Your task to perform on an android device: set default search engine in the chrome app Image 0: 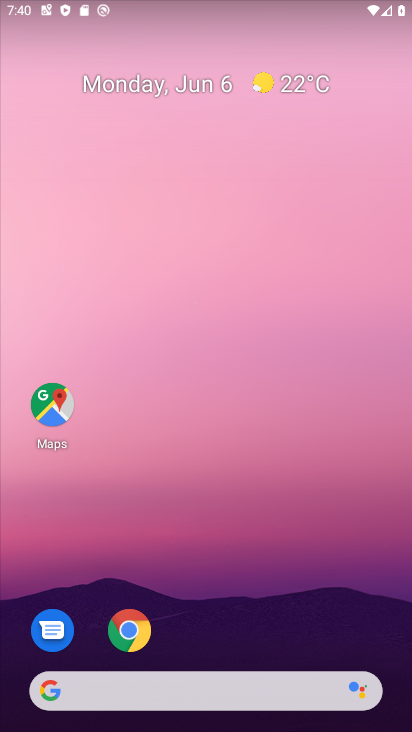
Step 0: click (119, 650)
Your task to perform on an android device: set default search engine in the chrome app Image 1: 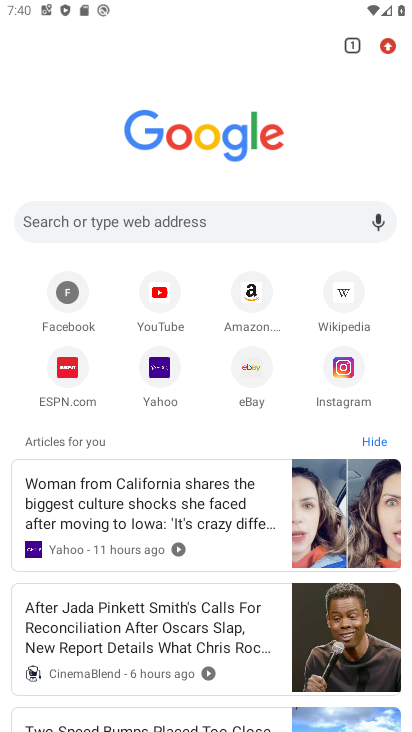
Step 1: click (390, 45)
Your task to perform on an android device: set default search engine in the chrome app Image 2: 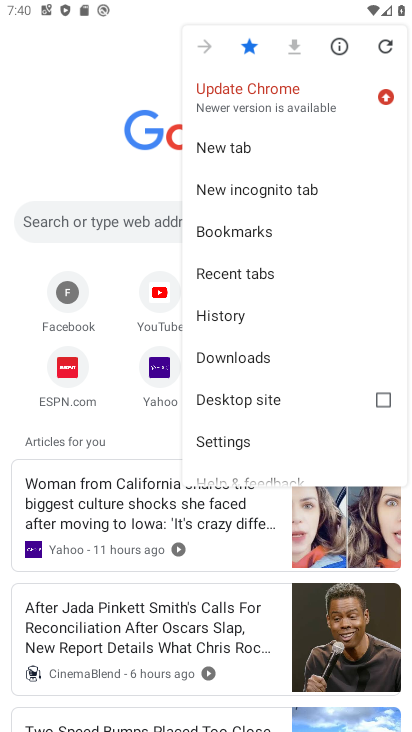
Step 2: click (227, 441)
Your task to perform on an android device: set default search engine in the chrome app Image 3: 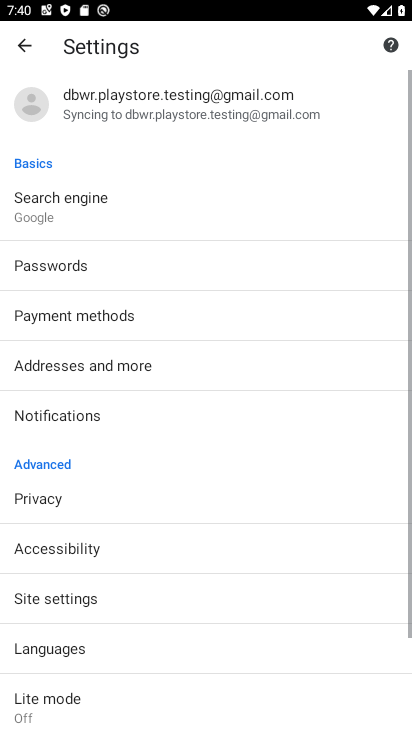
Step 3: click (73, 207)
Your task to perform on an android device: set default search engine in the chrome app Image 4: 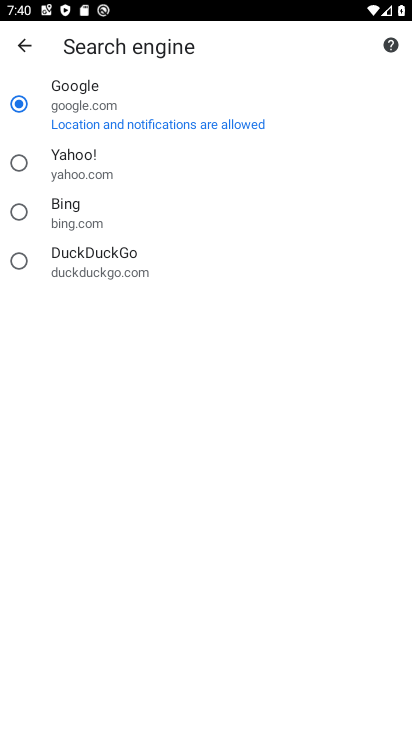
Step 4: click (54, 163)
Your task to perform on an android device: set default search engine in the chrome app Image 5: 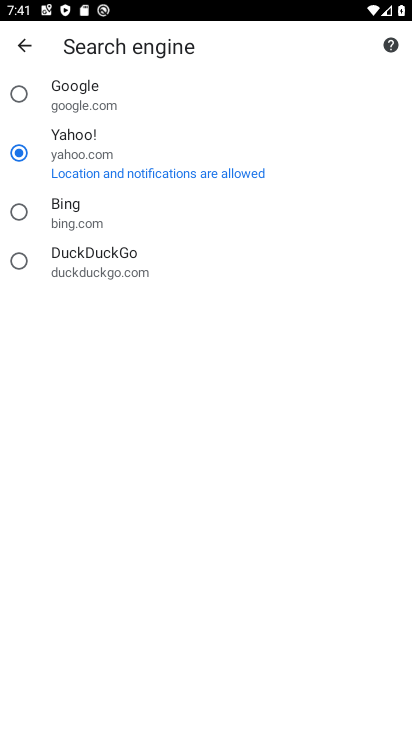
Step 5: task complete